Your task to perform on an android device: turn on improve location accuracy Image 0: 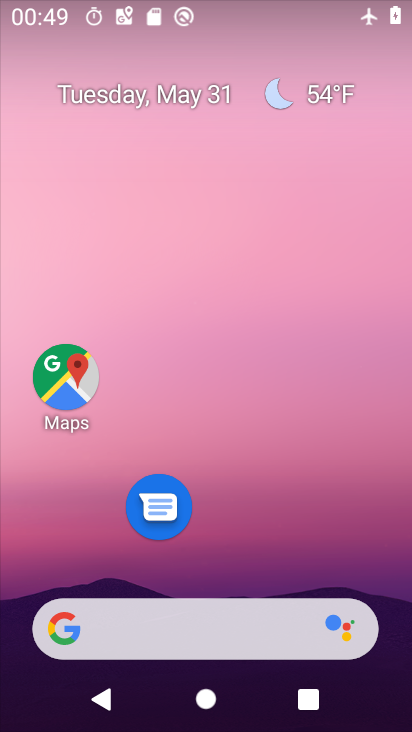
Step 0: drag from (255, 669) to (179, 166)
Your task to perform on an android device: turn on improve location accuracy Image 1: 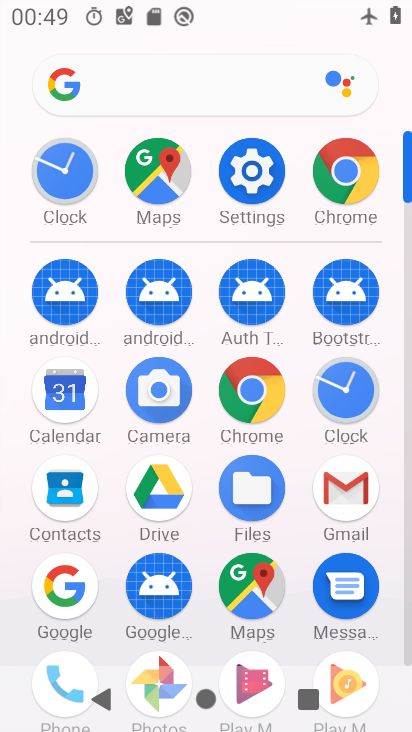
Step 1: click (244, 177)
Your task to perform on an android device: turn on improve location accuracy Image 2: 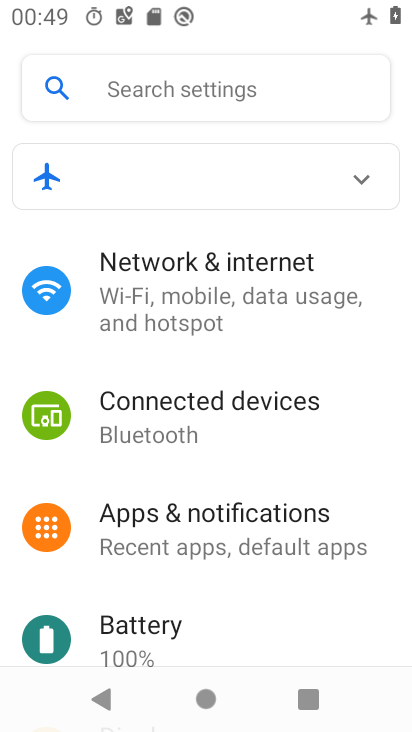
Step 2: drag from (179, 565) to (198, 210)
Your task to perform on an android device: turn on improve location accuracy Image 3: 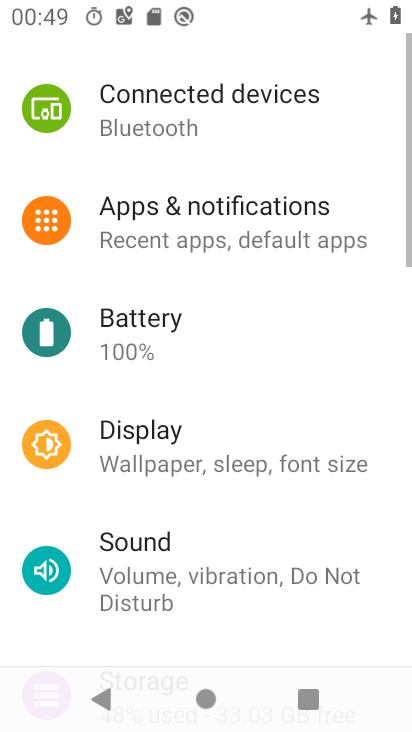
Step 3: drag from (198, 504) to (201, 256)
Your task to perform on an android device: turn on improve location accuracy Image 4: 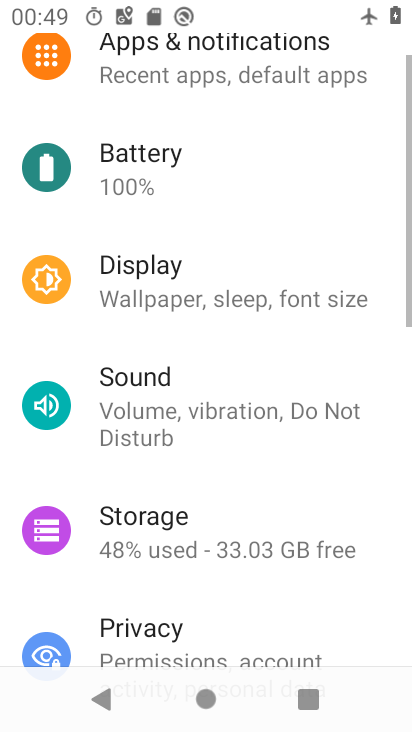
Step 4: drag from (190, 541) to (215, 272)
Your task to perform on an android device: turn on improve location accuracy Image 5: 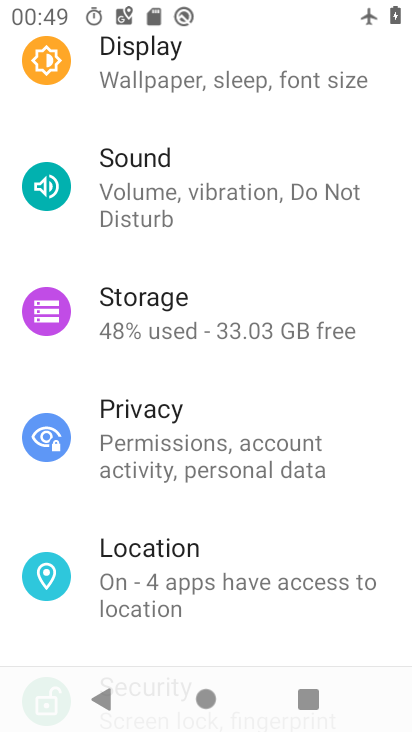
Step 5: click (157, 577)
Your task to perform on an android device: turn on improve location accuracy Image 6: 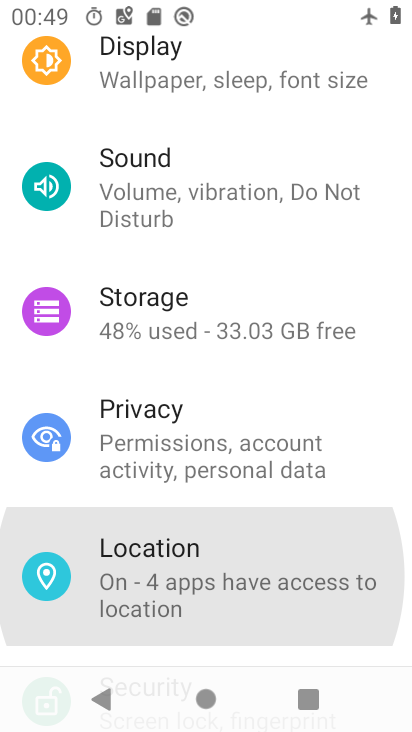
Step 6: click (157, 577)
Your task to perform on an android device: turn on improve location accuracy Image 7: 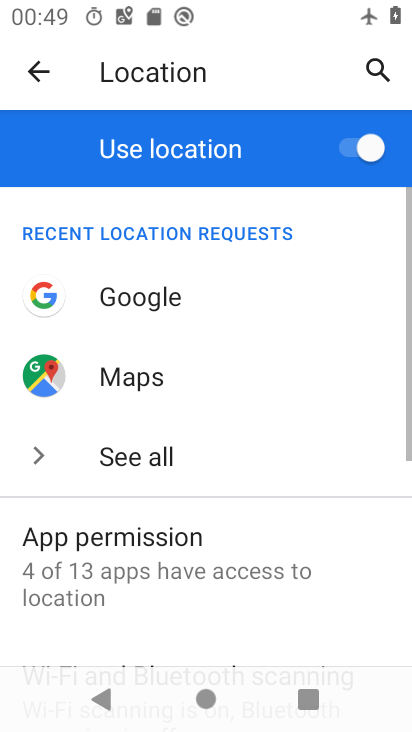
Step 7: drag from (105, 554) to (136, 424)
Your task to perform on an android device: turn on improve location accuracy Image 8: 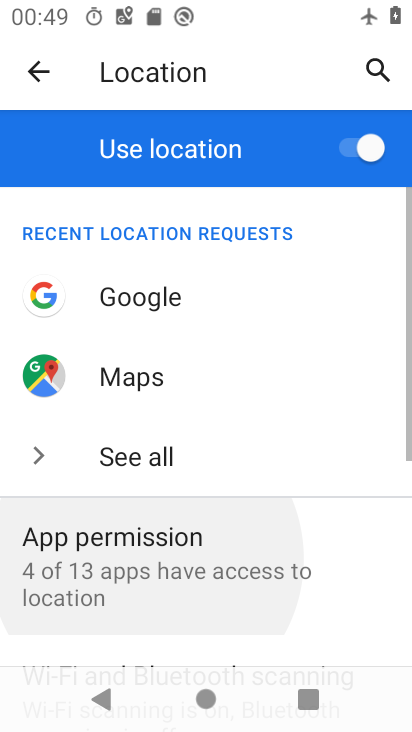
Step 8: drag from (138, 596) to (168, 407)
Your task to perform on an android device: turn on improve location accuracy Image 9: 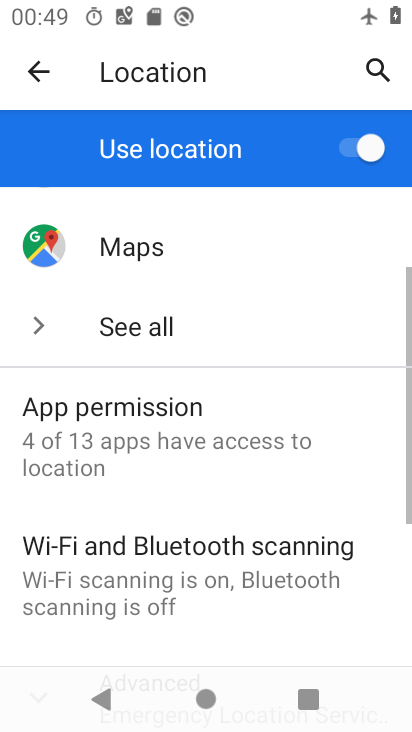
Step 9: drag from (221, 481) to (239, 349)
Your task to perform on an android device: turn on improve location accuracy Image 10: 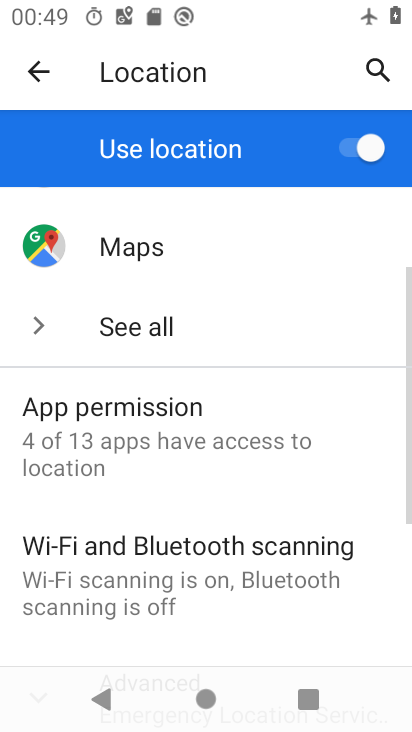
Step 10: drag from (243, 554) to (242, 326)
Your task to perform on an android device: turn on improve location accuracy Image 11: 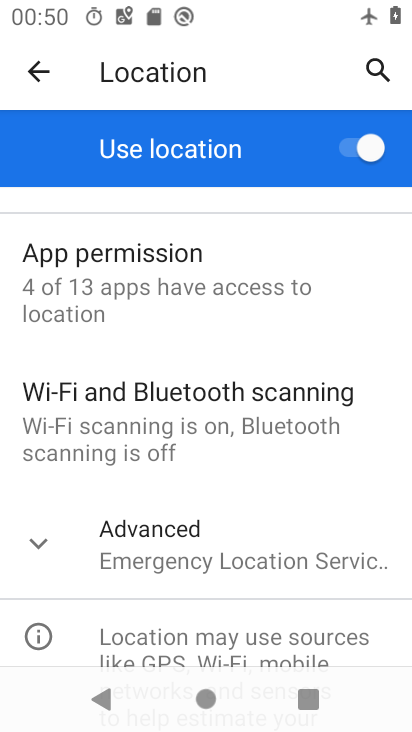
Step 11: drag from (190, 553) to (190, 258)
Your task to perform on an android device: turn on improve location accuracy Image 12: 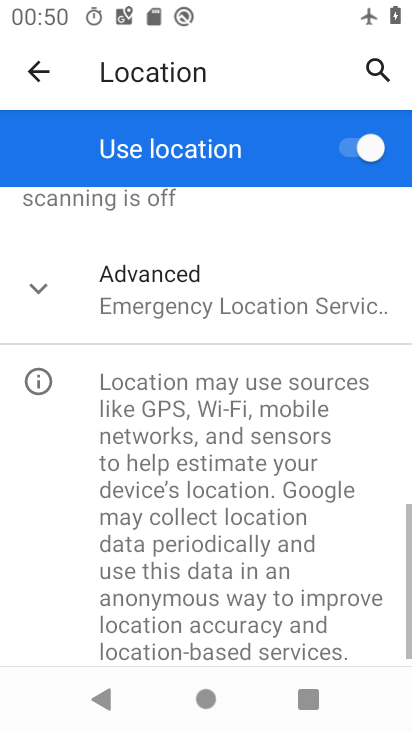
Step 12: drag from (196, 533) to (210, 249)
Your task to perform on an android device: turn on improve location accuracy Image 13: 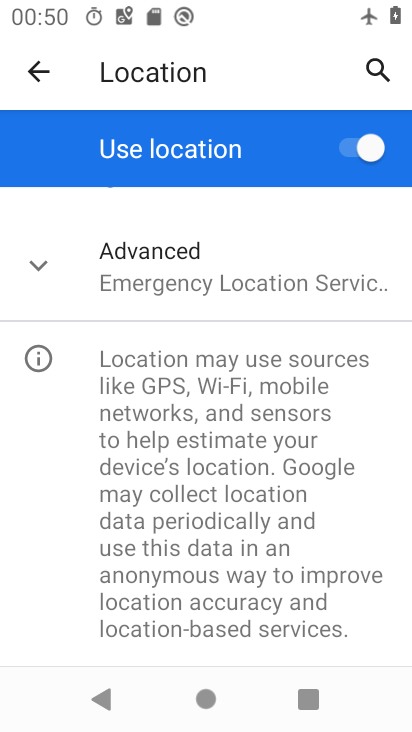
Step 13: click (185, 278)
Your task to perform on an android device: turn on improve location accuracy Image 14: 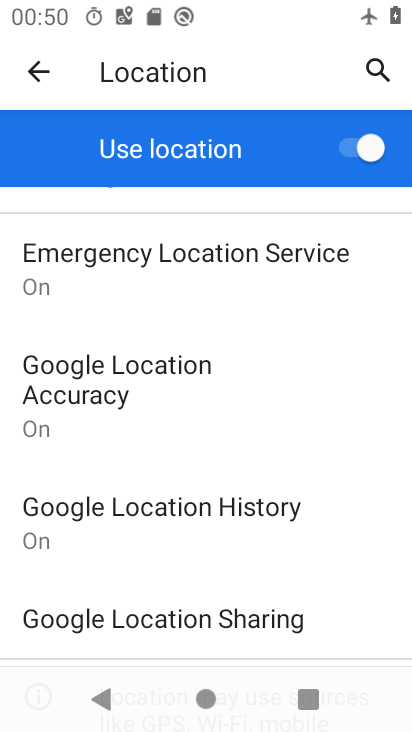
Step 14: click (49, 390)
Your task to perform on an android device: turn on improve location accuracy Image 15: 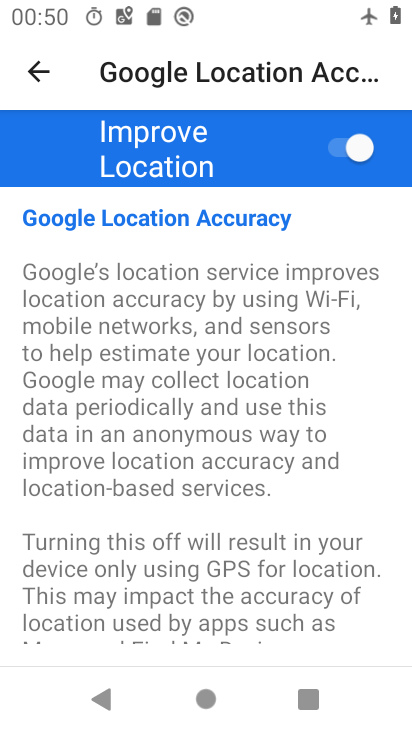
Step 15: task complete